Your task to perform on an android device: Is it going to rain tomorrow? Image 0: 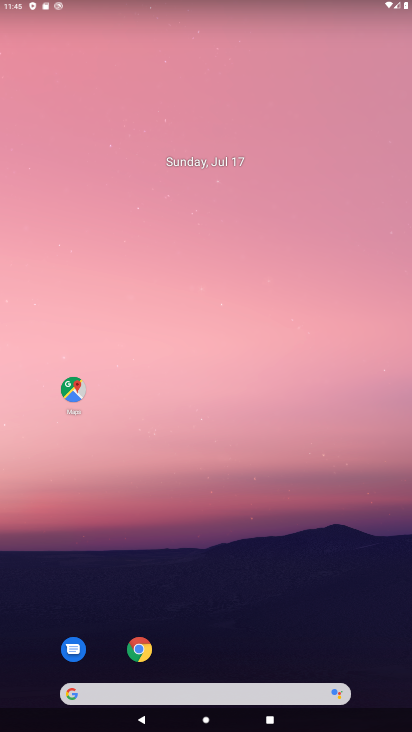
Step 0: click (115, 686)
Your task to perform on an android device: Is it going to rain tomorrow? Image 1: 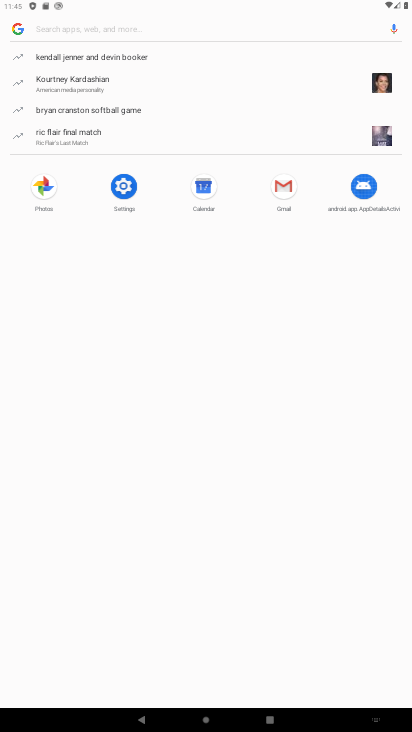
Step 1: type "Is it going to rain tomorrow?"
Your task to perform on an android device: Is it going to rain tomorrow? Image 2: 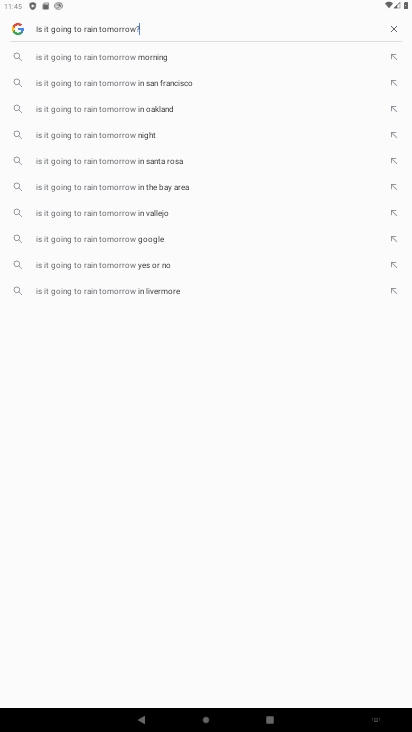
Step 2: type ""
Your task to perform on an android device: Is it going to rain tomorrow? Image 3: 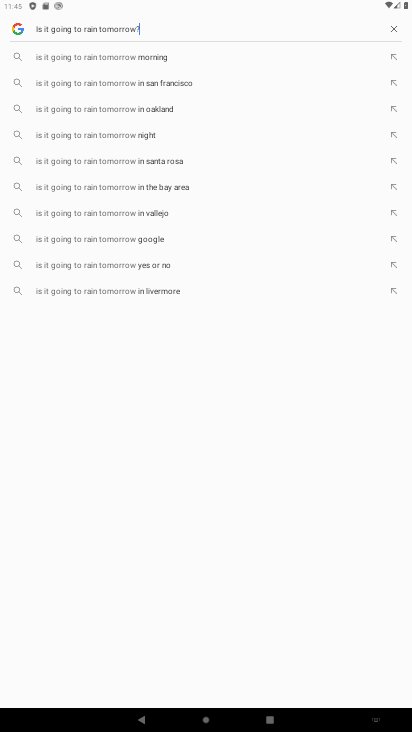
Step 3: type ""
Your task to perform on an android device: Is it going to rain tomorrow? Image 4: 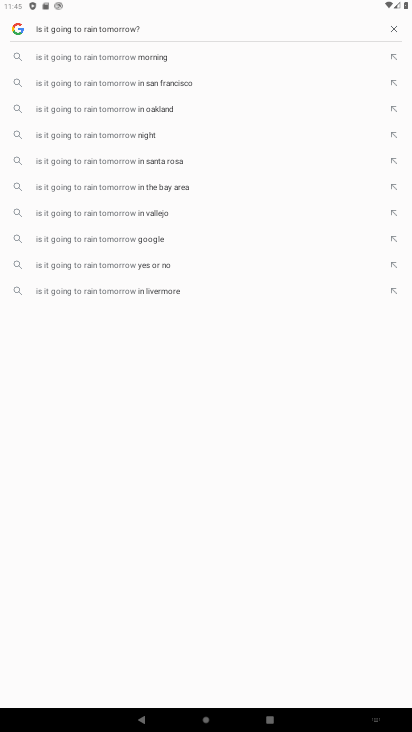
Step 4: type ""
Your task to perform on an android device: Is it going to rain tomorrow? Image 5: 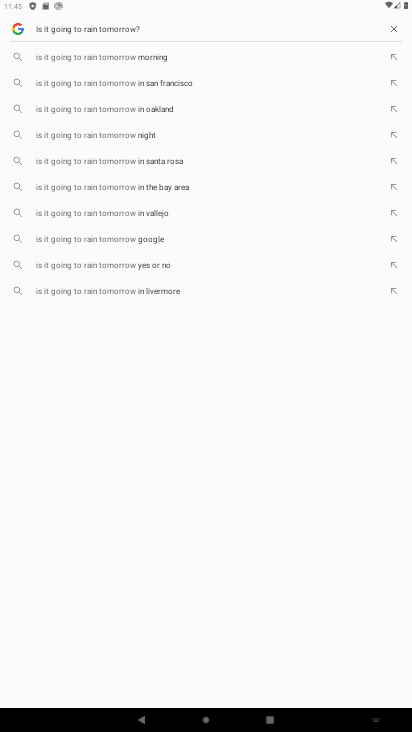
Step 5: task complete